Your task to perform on an android device: turn on the 24-hour format for clock Image 0: 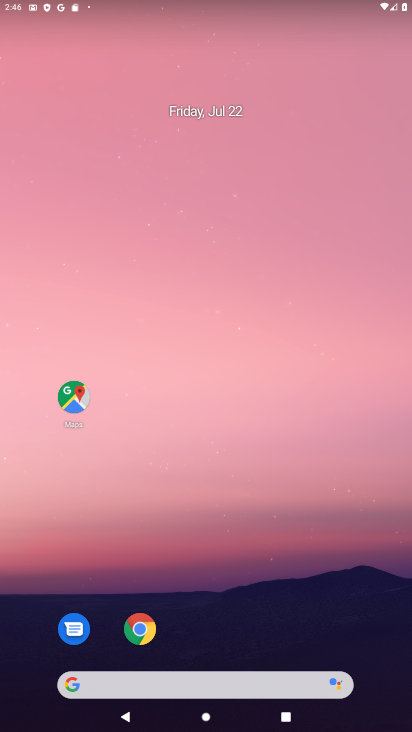
Step 0: drag from (209, 623) to (171, 42)
Your task to perform on an android device: turn on the 24-hour format for clock Image 1: 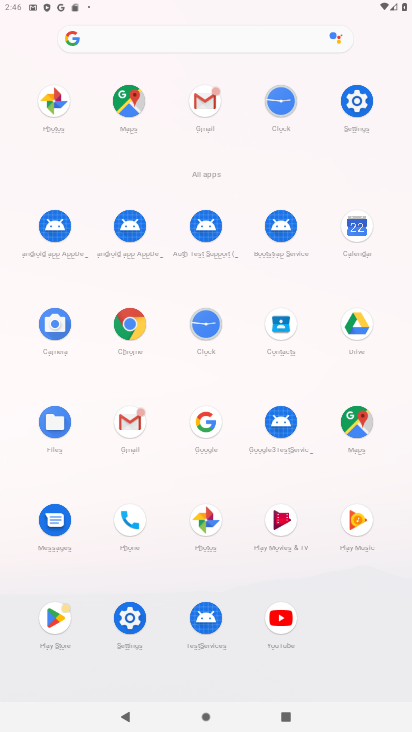
Step 1: click (281, 110)
Your task to perform on an android device: turn on the 24-hour format for clock Image 2: 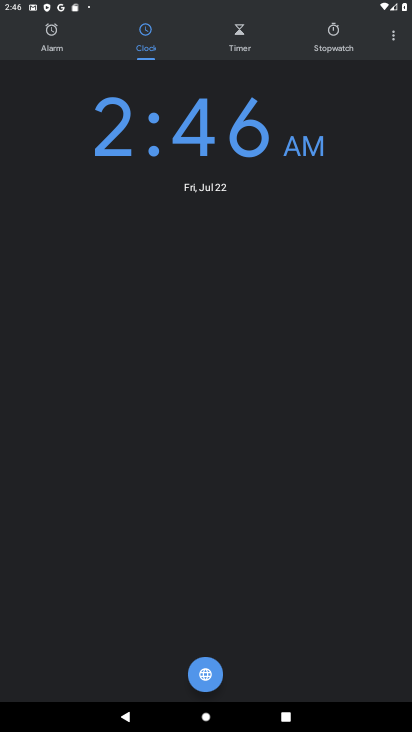
Step 2: click (392, 36)
Your task to perform on an android device: turn on the 24-hour format for clock Image 3: 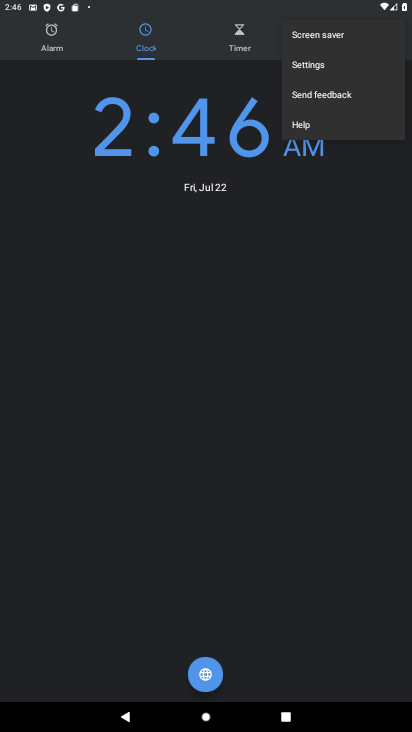
Step 3: click (359, 56)
Your task to perform on an android device: turn on the 24-hour format for clock Image 4: 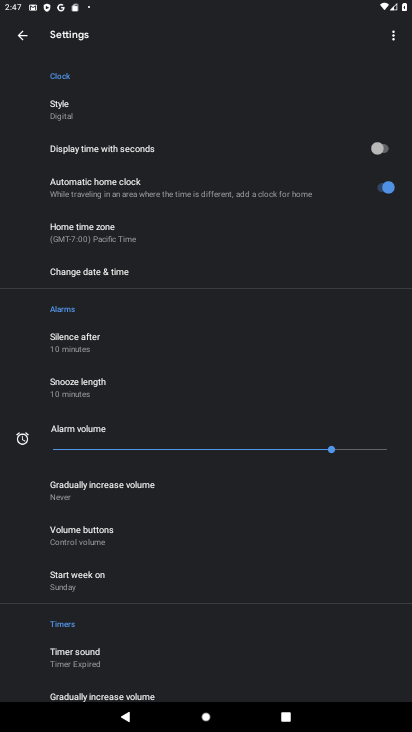
Step 4: click (153, 270)
Your task to perform on an android device: turn on the 24-hour format for clock Image 5: 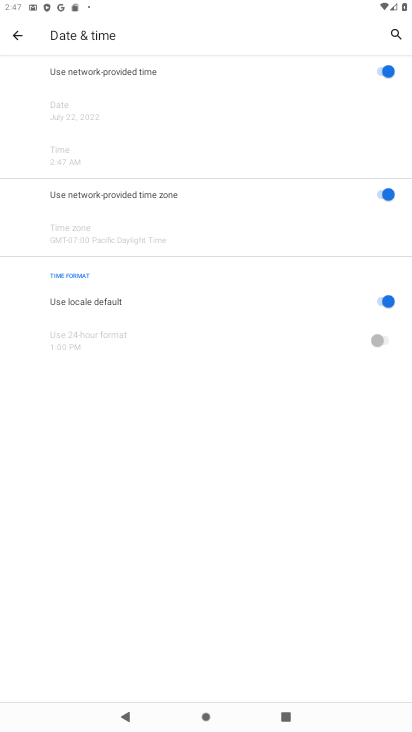
Step 5: click (383, 305)
Your task to perform on an android device: turn on the 24-hour format for clock Image 6: 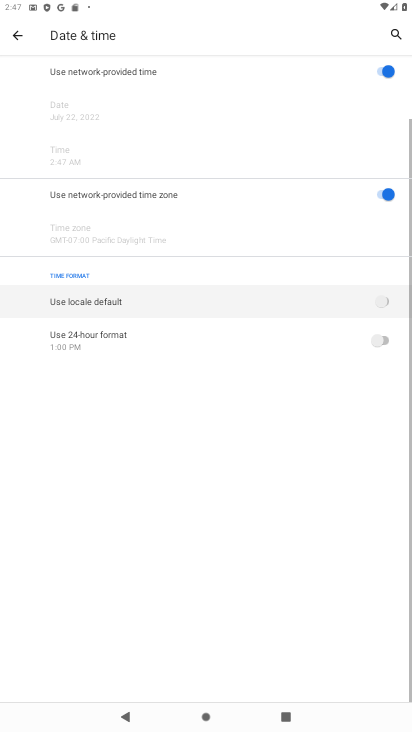
Step 6: click (386, 340)
Your task to perform on an android device: turn on the 24-hour format for clock Image 7: 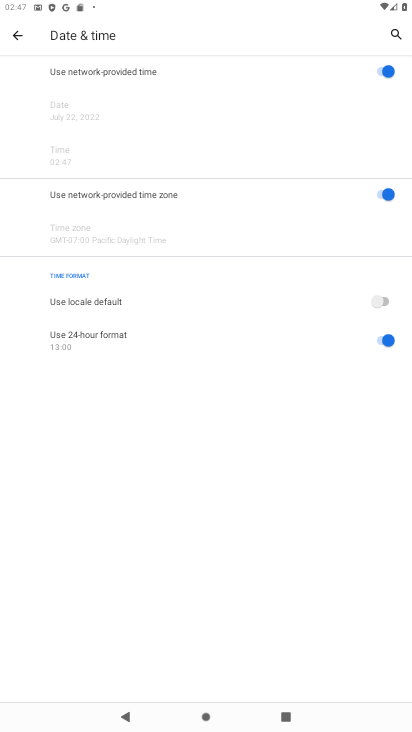
Step 7: task complete